Your task to perform on an android device: turn off wifi Image 0: 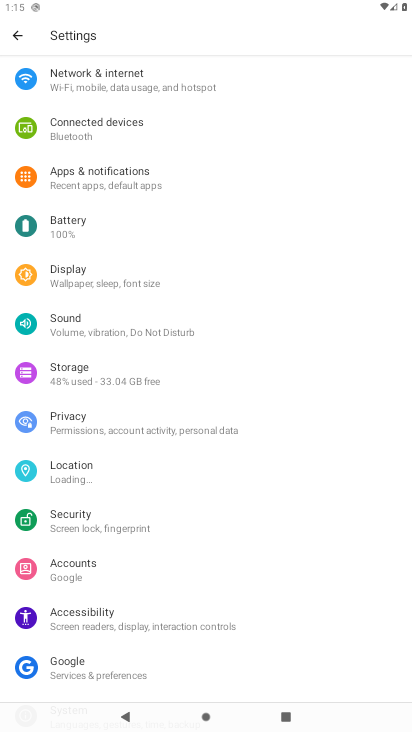
Step 0: press home button
Your task to perform on an android device: turn off wifi Image 1: 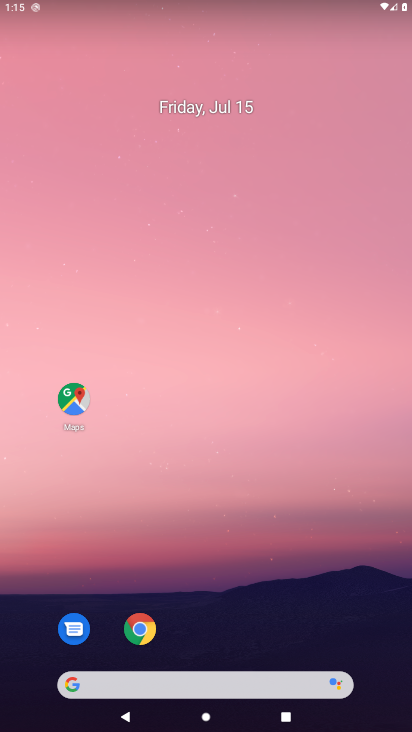
Step 1: drag from (391, 21) to (387, 212)
Your task to perform on an android device: turn off wifi Image 2: 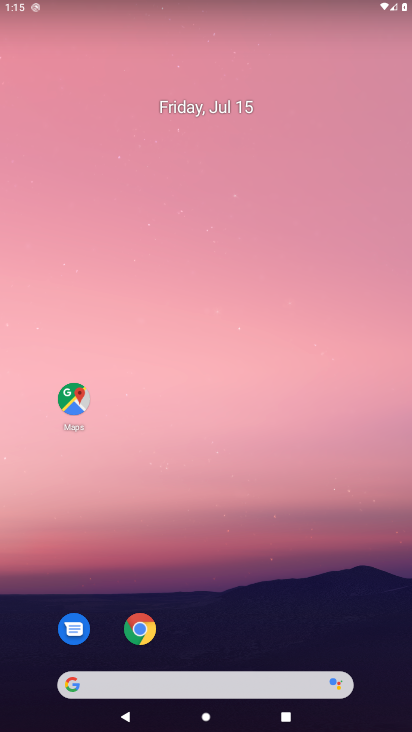
Step 2: drag from (388, 4) to (392, 62)
Your task to perform on an android device: turn off wifi Image 3: 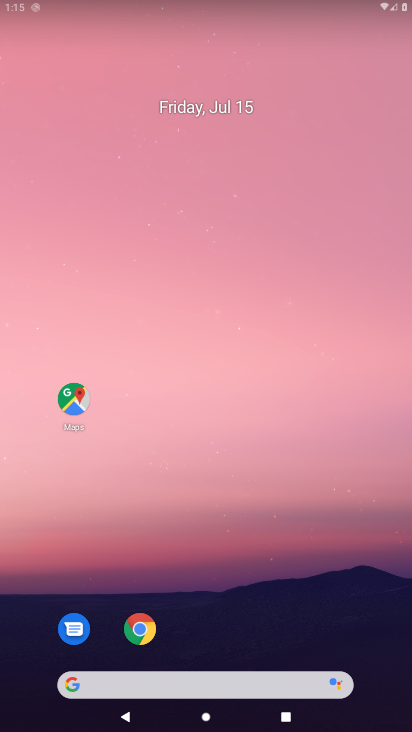
Step 3: drag from (282, 13) to (257, 470)
Your task to perform on an android device: turn off wifi Image 4: 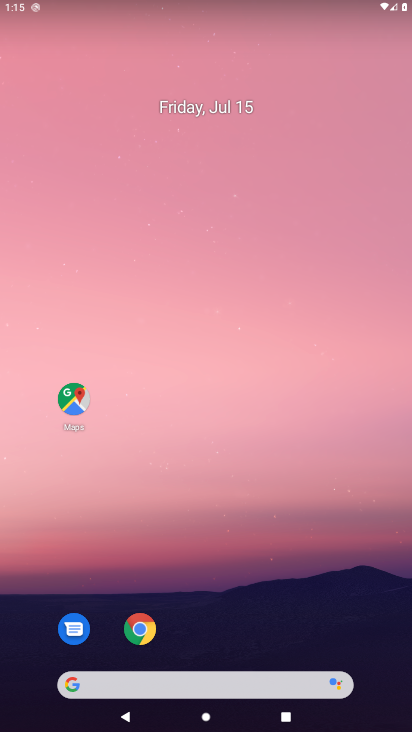
Step 4: drag from (275, 9) to (253, 666)
Your task to perform on an android device: turn off wifi Image 5: 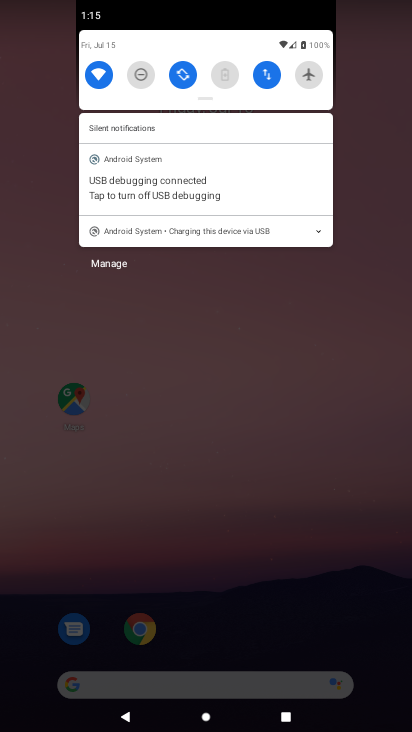
Step 5: click (103, 80)
Your task to perform on an android device: turn off wifi Image 6: 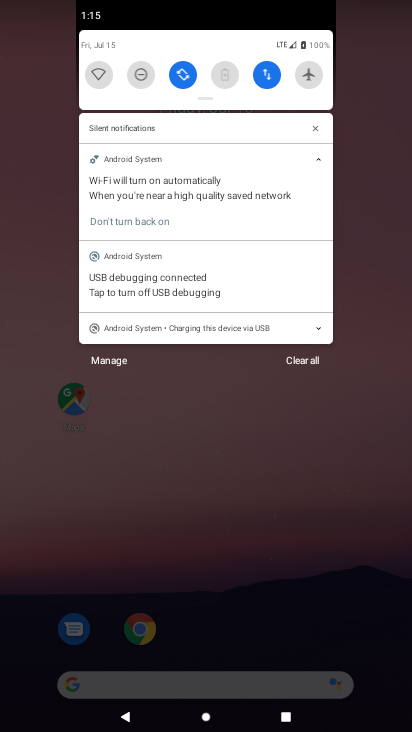
Step 6: task complete